Your task to perform on an android device: open app "Facebook Lite" (install if not already installed) and go to login screen Image 0: 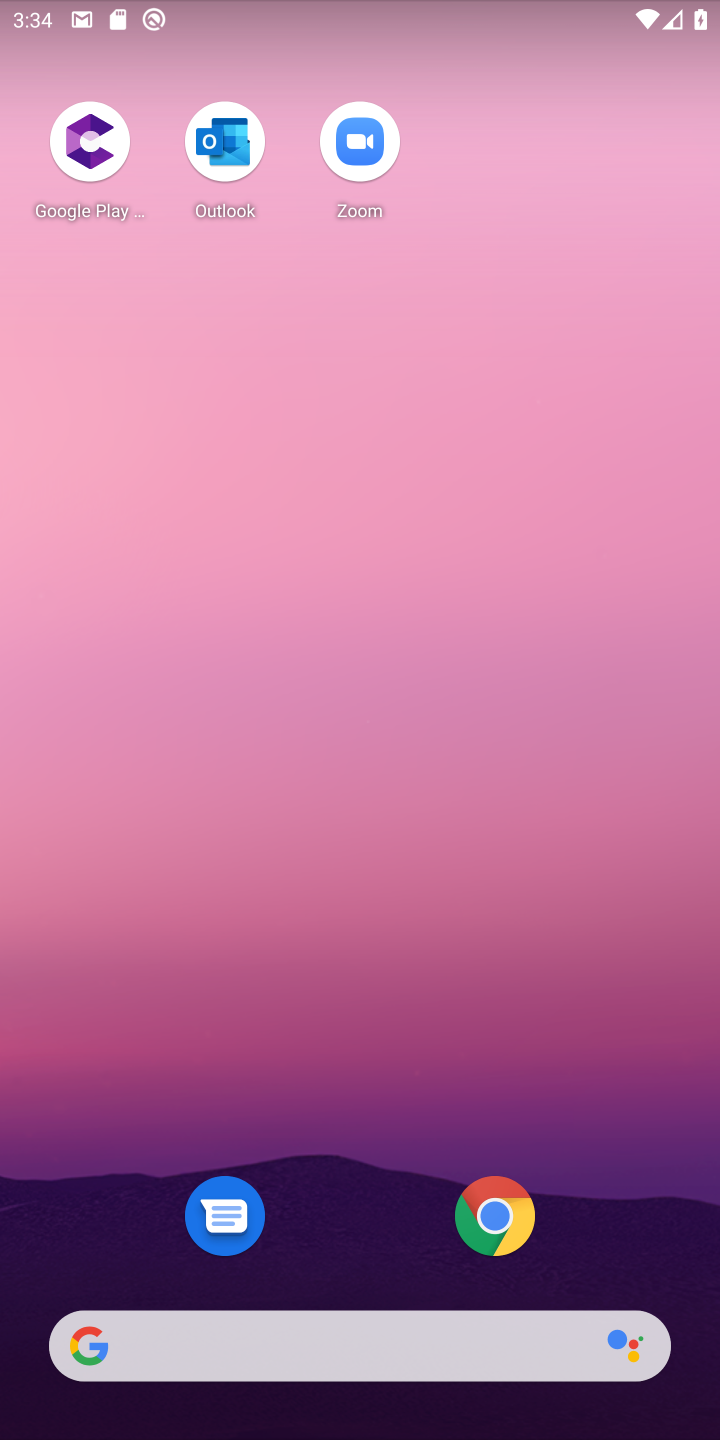
Step 0: drag from (385, 1006) to (566, 116)
Your task to perform on an android device: open app "Facebook Lite" (install if not already installed) and go to login screen Image 1: 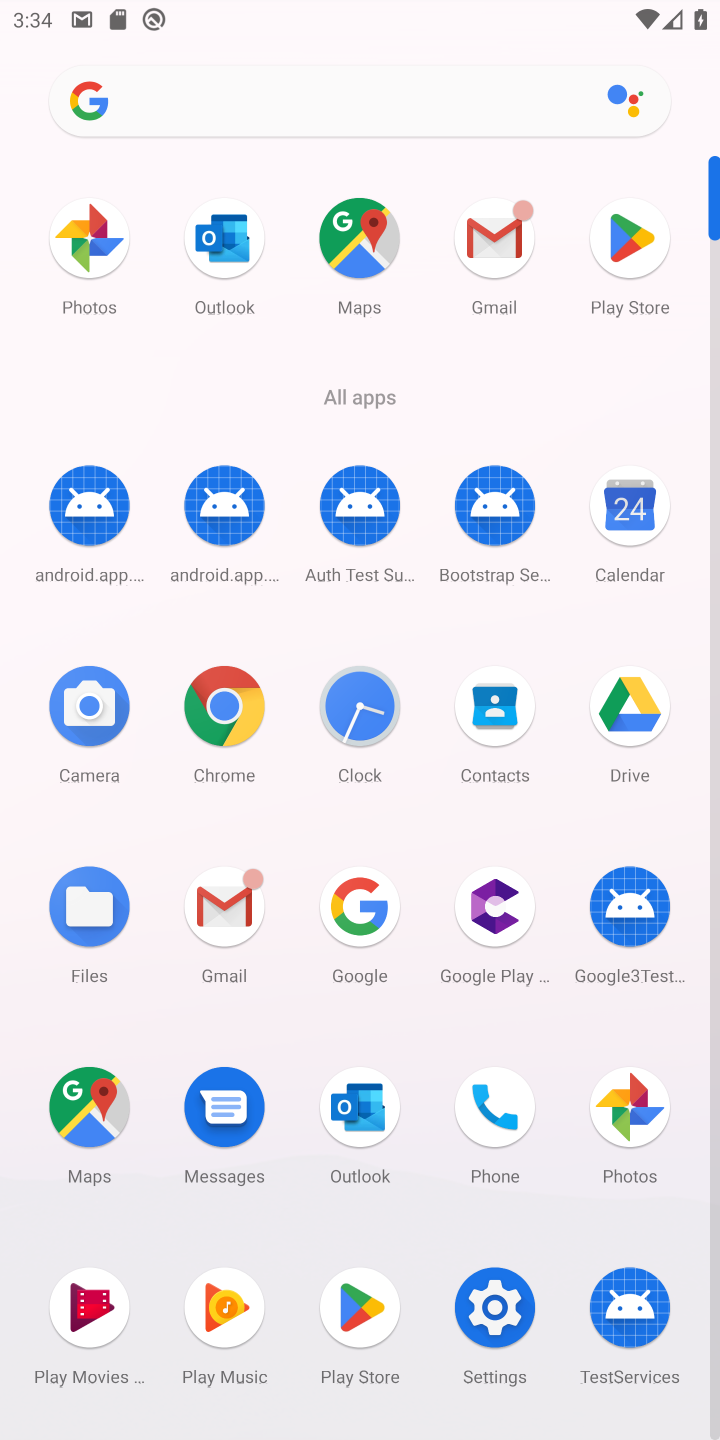
Step 1: click (651, 241)
Your task to perform on an android device: open app "Facebook Lite" (install if not already installed) and go to login screen Image 2: 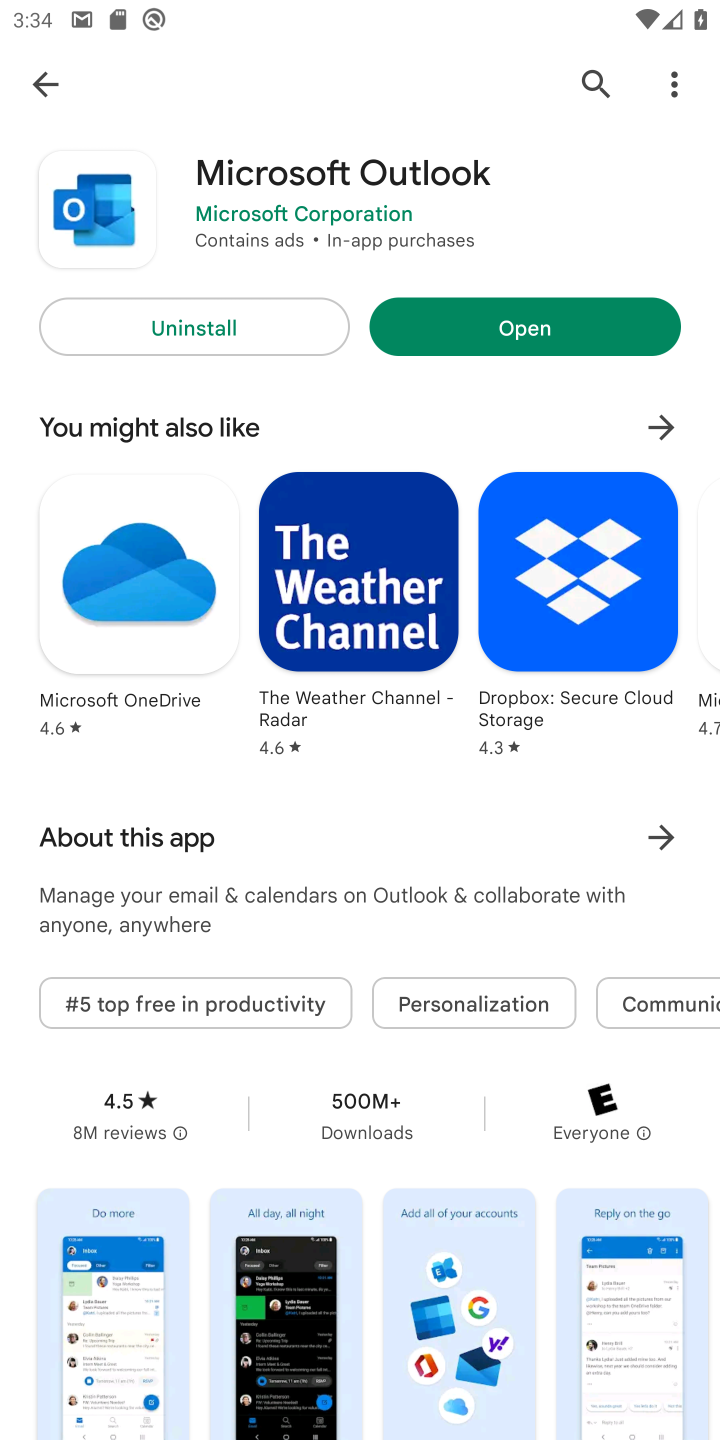
Step 2: click (581, 83)
Your task to perform on an android device: open app "Facebook Lite" (install if not already installed) and go to login screen Image 3: 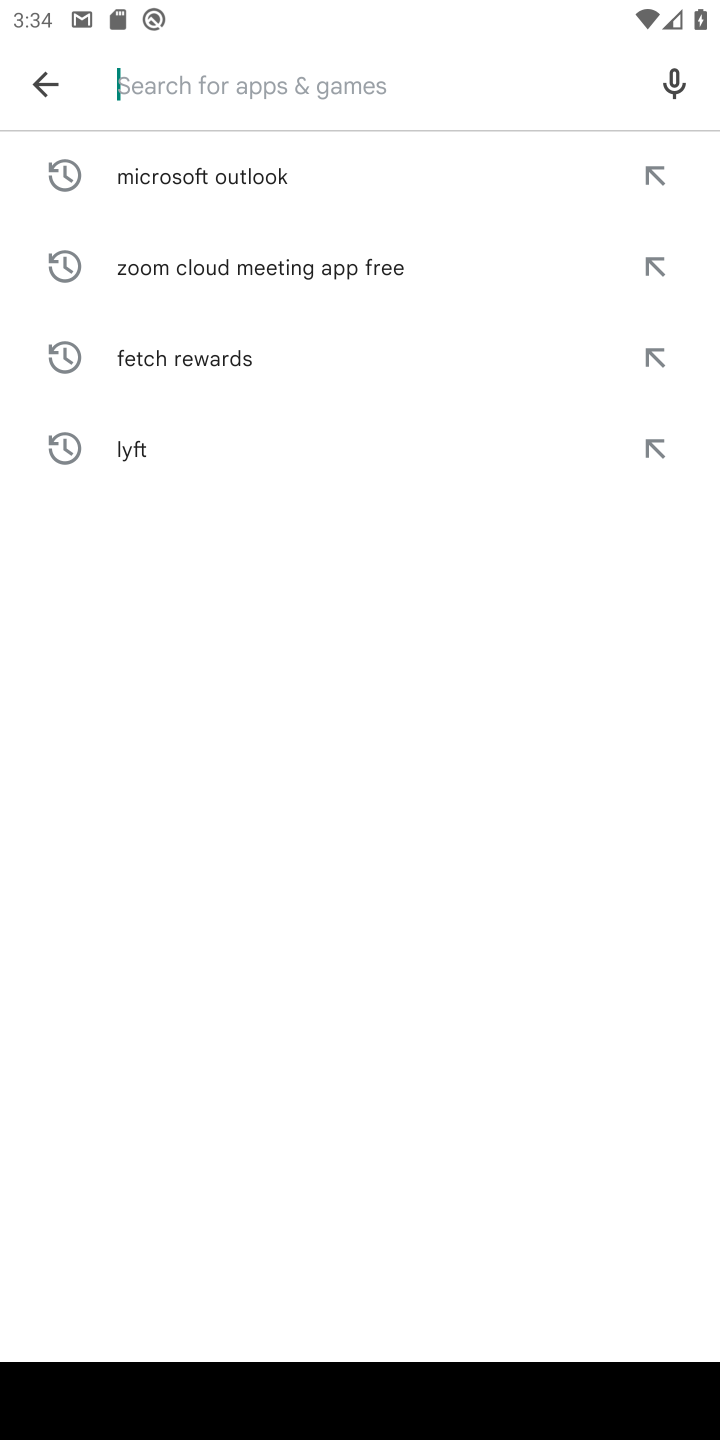
Step 3: click (214, 78)
Your task to perform on an android device: open app "Facebook Lite" (install if not already installed) and go to login screen Image 4: 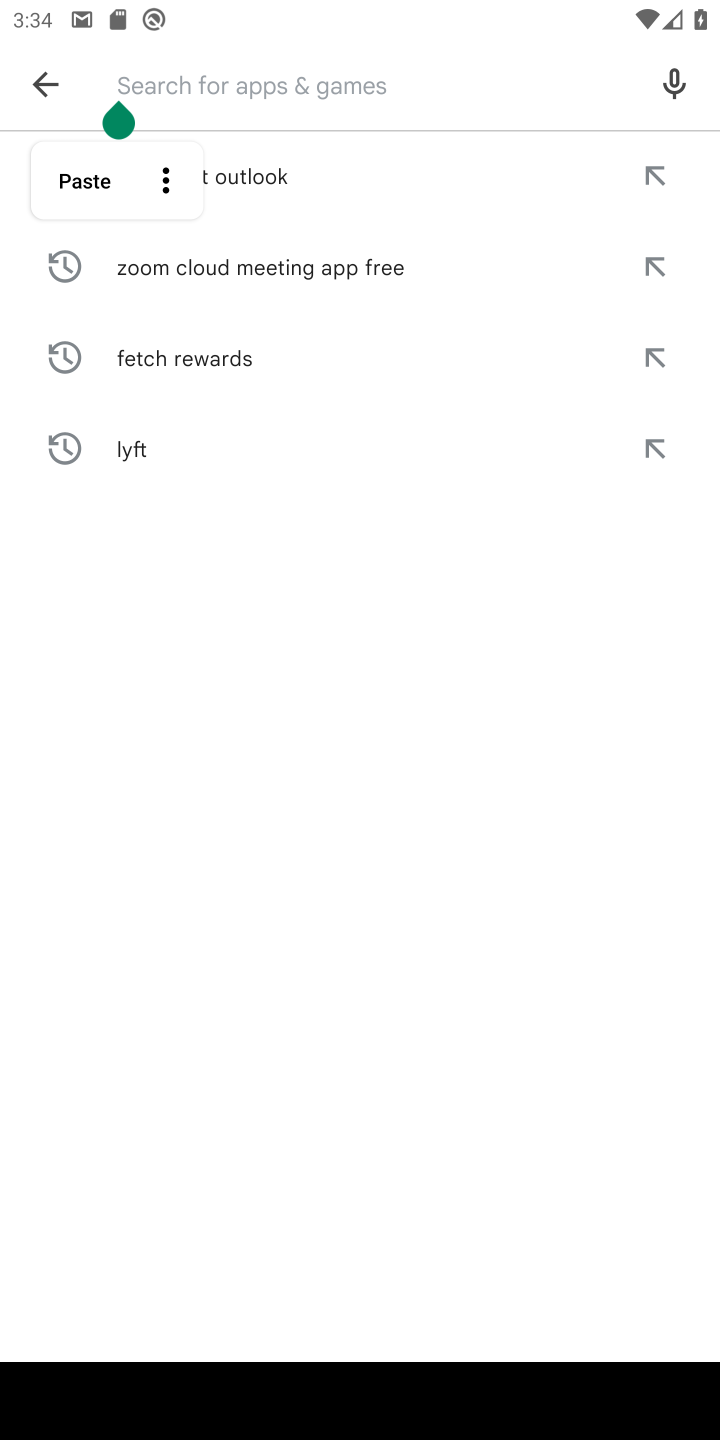
Step 4: type "Facebook Lite"
Your task to perform on an android device: open app "Facebook Lite" (install if not already installed) and go to login screen Image 5: 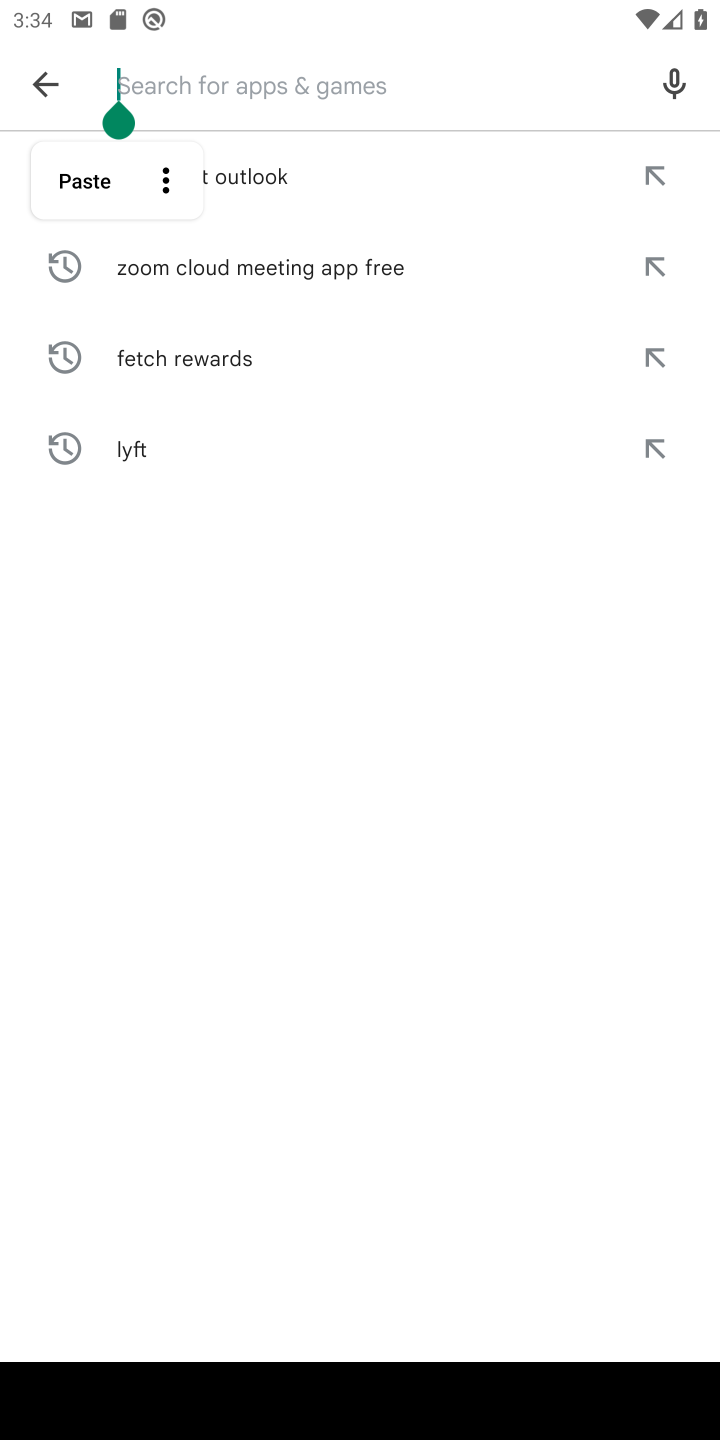
Step 5: click (446, 1147)
Your task to perform on an android device: open app "Facebook Lite" (install if not already installed) and go to login screen Image 6: 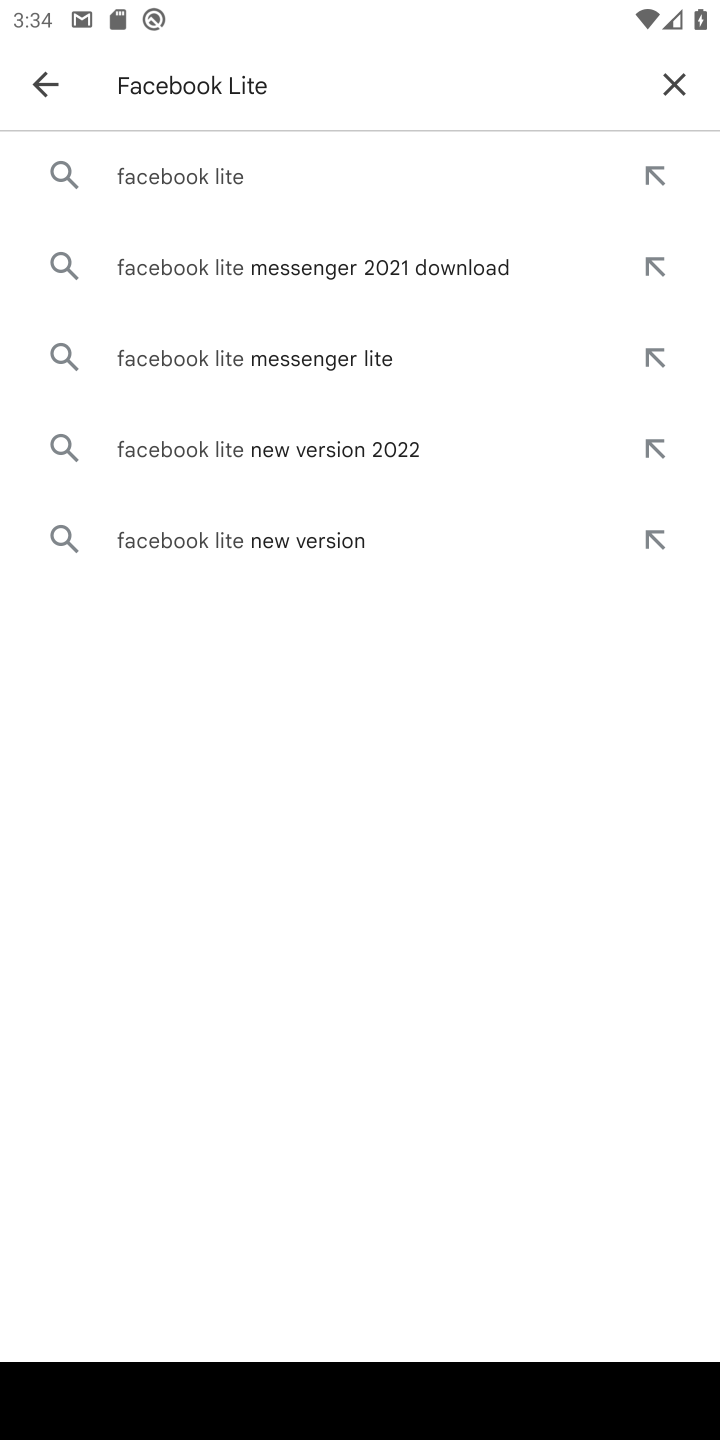
Step 6: click (177, 192)
Your task to perform on an android device: open app "Facebook Lite" (install if not already installed) and go to login screen Image 7: 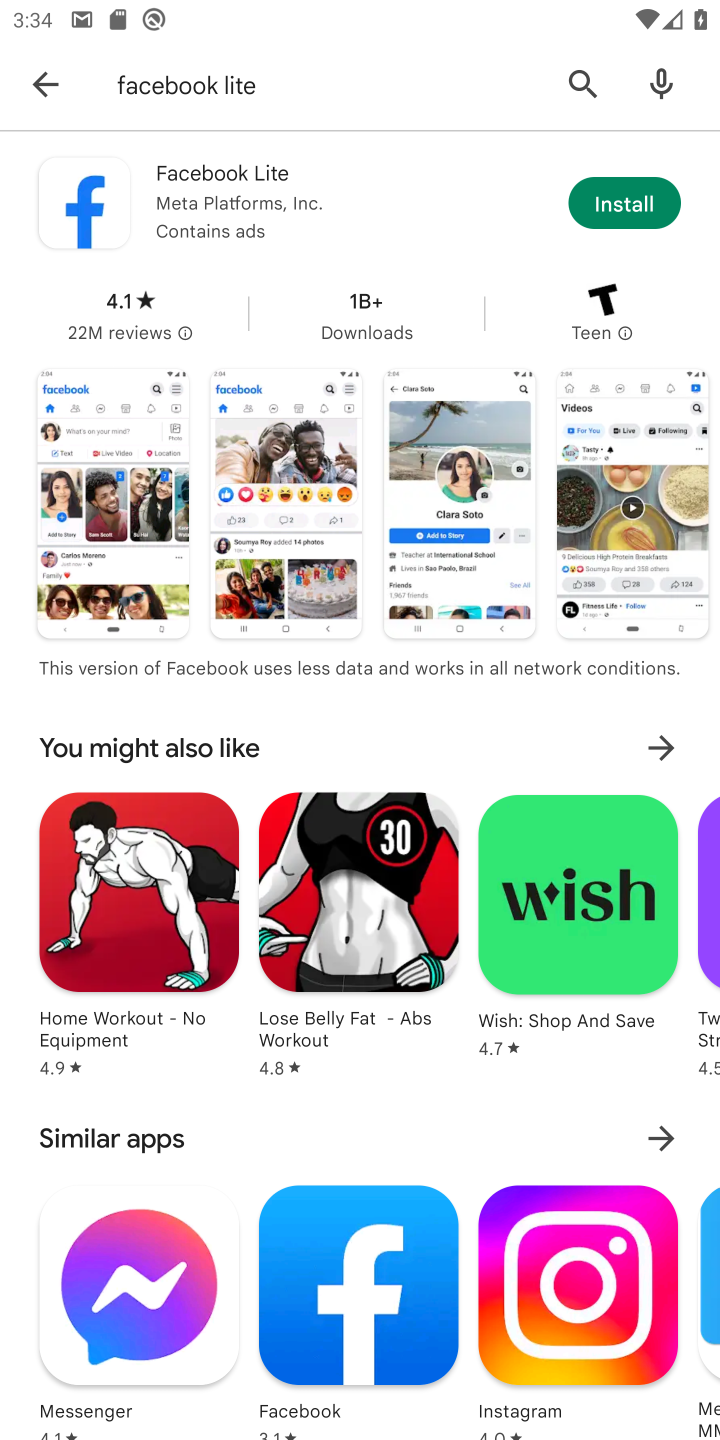
Step 7: click (647, 195)
Your task to perform on an android device: open app "Facebook Lite" (install if not already installed) and go to login screen Image 8: 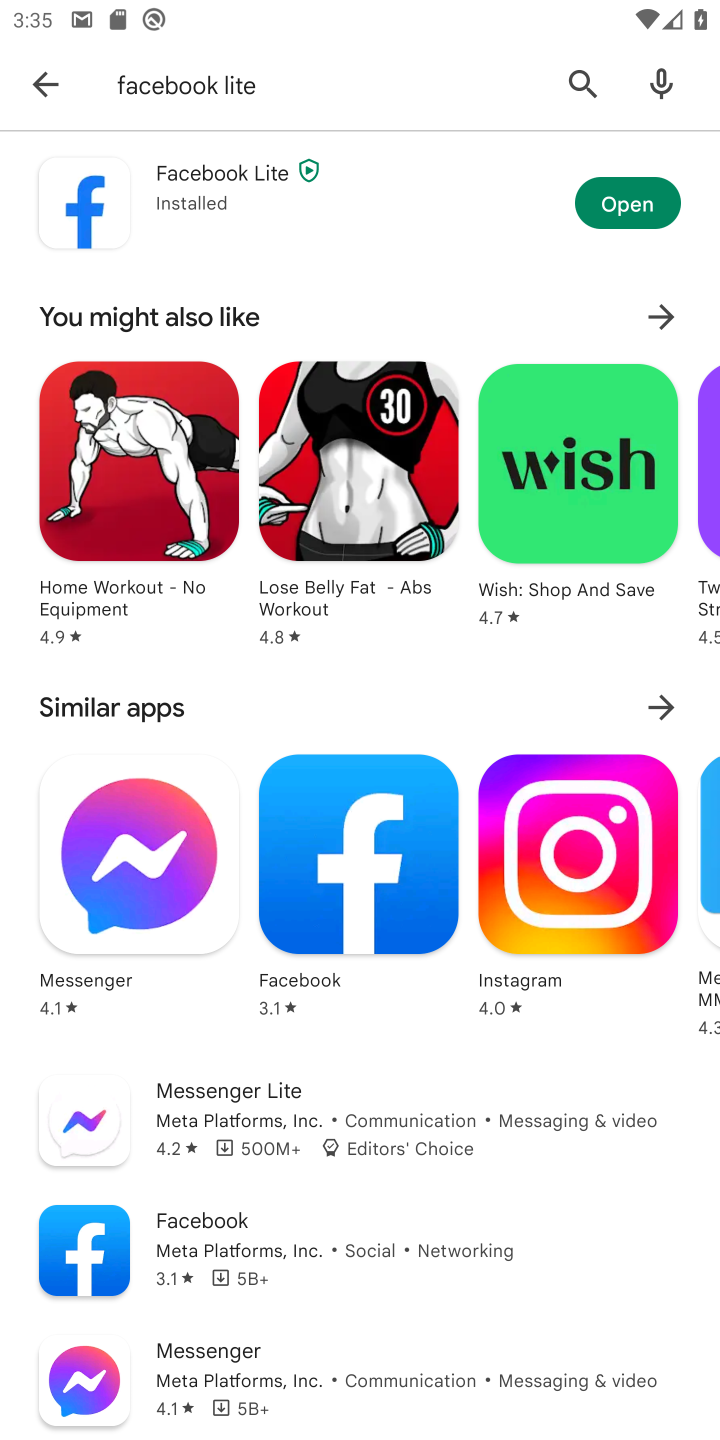
Step 8: click (649, 187)
Your task to perform on an android device: open app "Facebook Lite" (install if not already installed) and go to login screen Image 9: 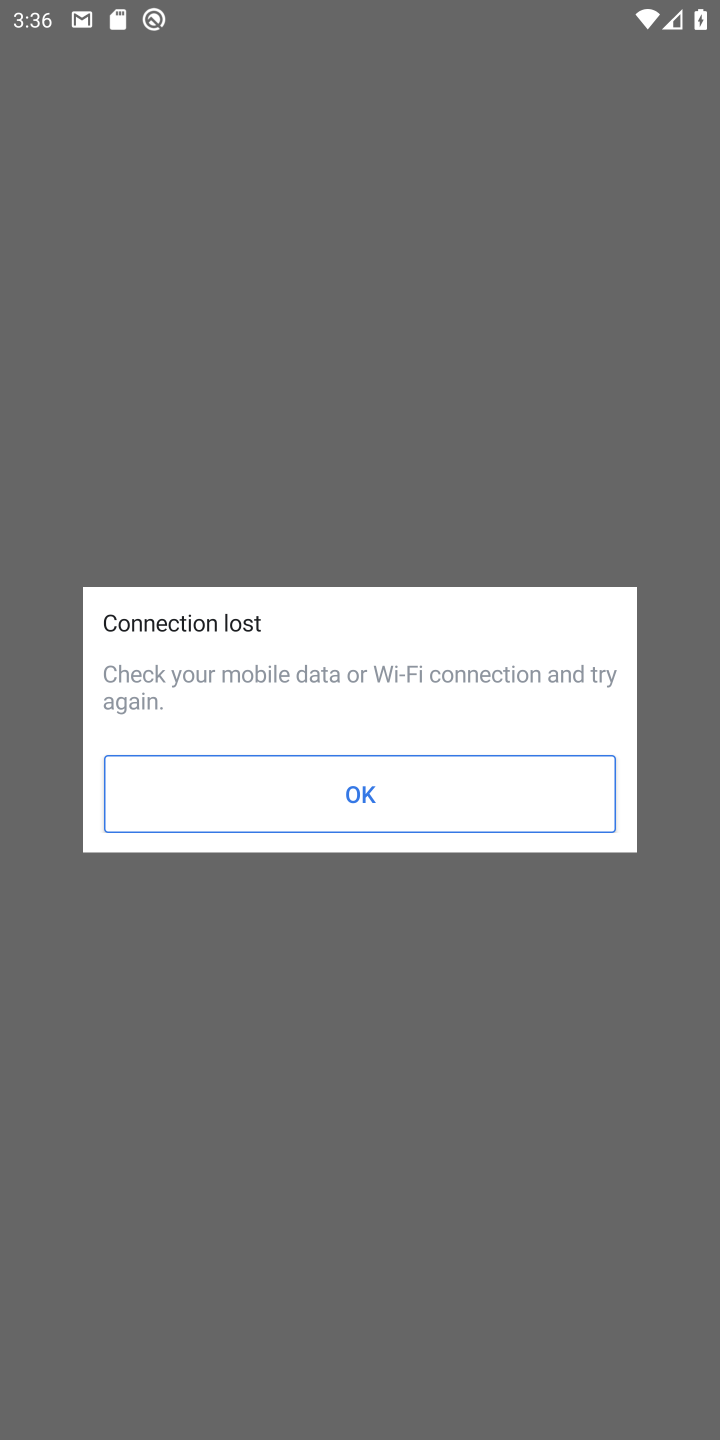
Step 9: task complete